Your task to perform on an android device: Go to Amazon Image 0: 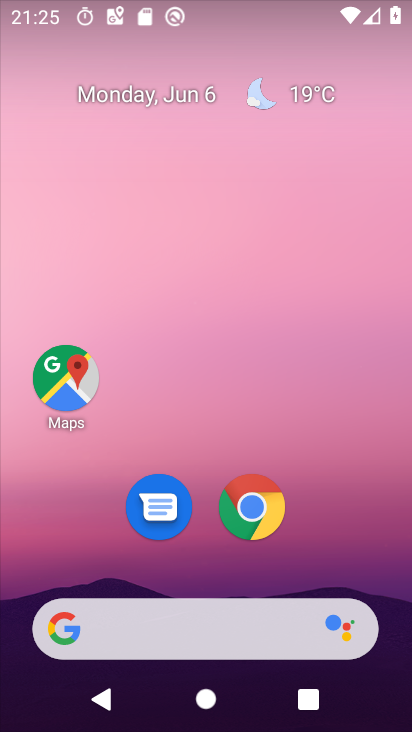
Step 0: click (251, 526)
Your task to perform on an android device: Go to Amazon Image 1: 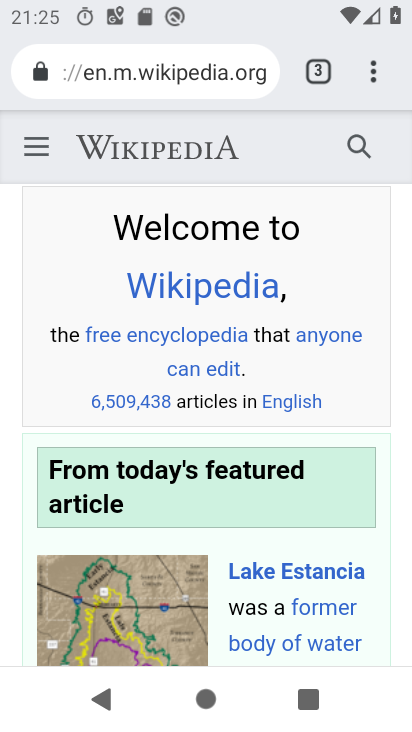
Step 1: drag from (379, 71) to (147, 136)
Your task to perform on an android device: Go to Amazon Image 2: 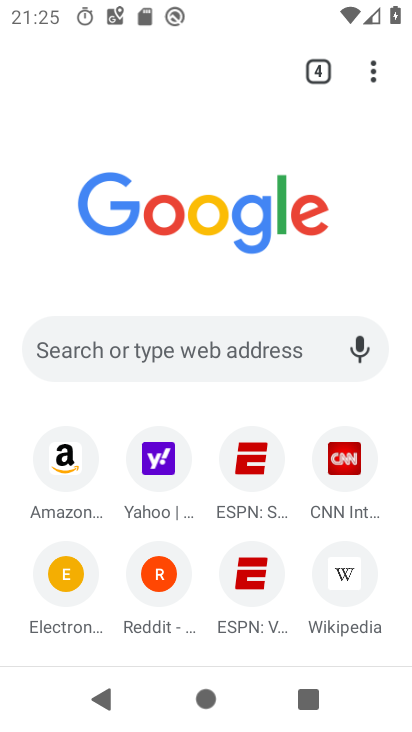
Step 2: click (47, 451)
Your task to perform on an android device: Go to Amazon Image 3: 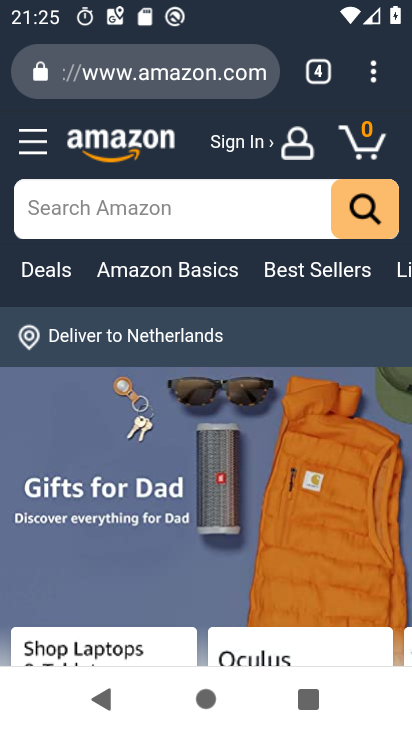
Step 3: task complete